Your task to perform on an android device: turn off notifications in google photos Image 0: 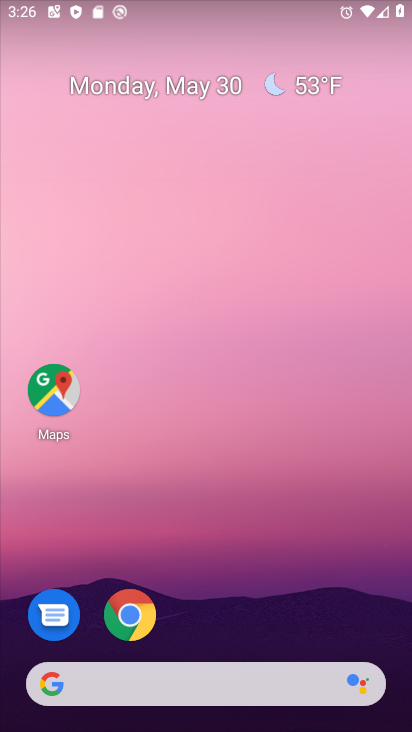
Step 0: drag from (292, 589) to (302, 202)
Your task to perform on an android device: turn off notifications in google photos Image 1: 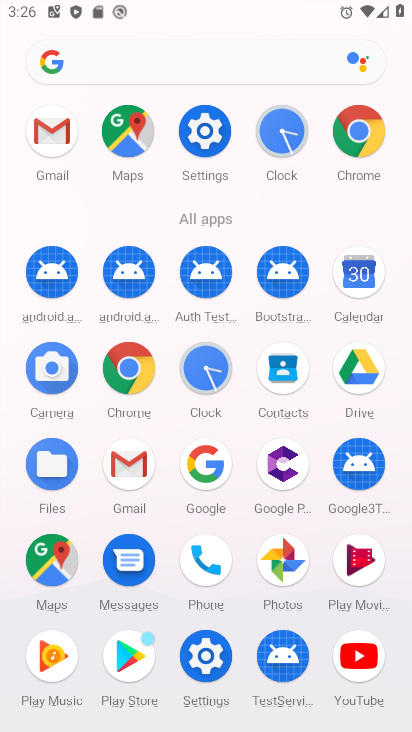
Step 1: click (284, 565)
Your task to perform on an android device: turn off notifications in google photos Image 2: 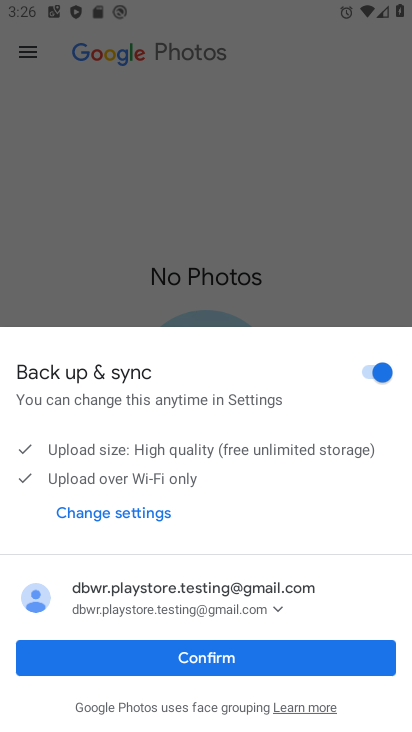
Step 2: click (191, 651)
Your task to perform on an android device: turn off notifications in google photos Image 3: 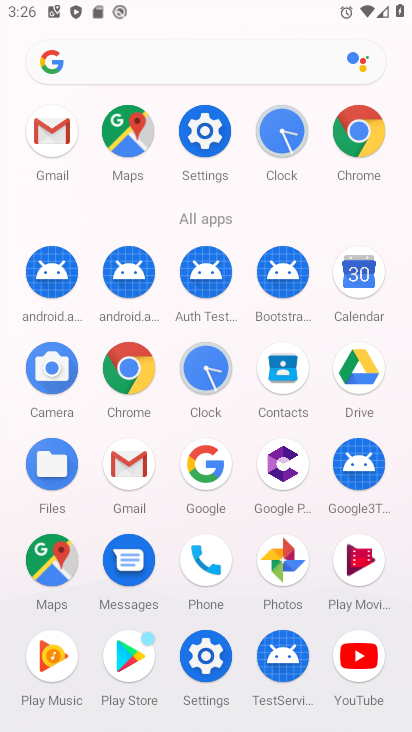
Step 3: click (277, 556)
Your task to perform on an android device: turn off notifications in google photos Image 4: 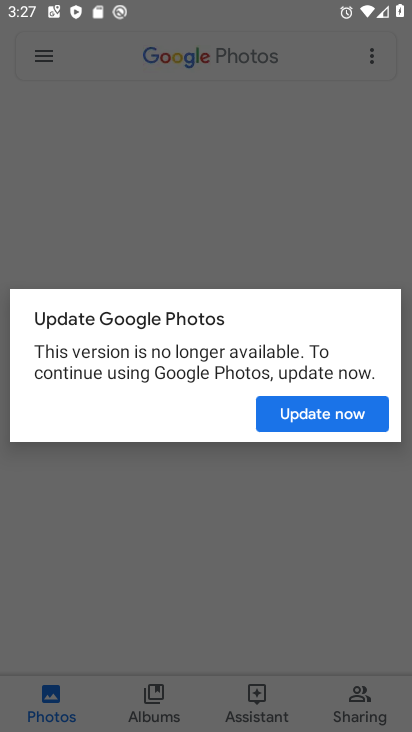
Step 4: click (319, 407)
Your task to perform on an android device: turn off notifications in google photos Image 5: 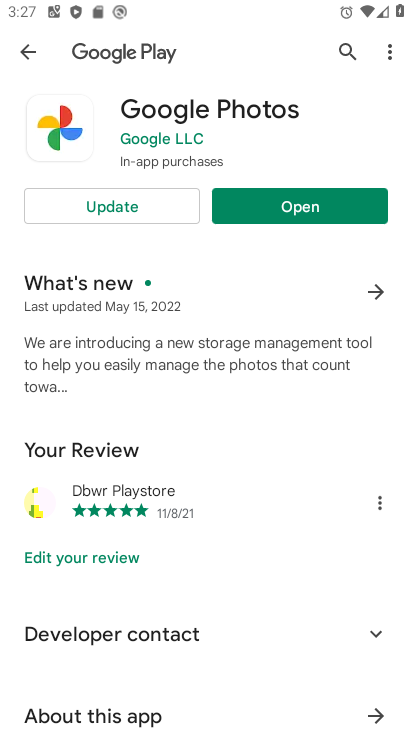
Step 5: click (247, 207)
Your task to perform on an android device: turn off notifications in google photos Image 6: 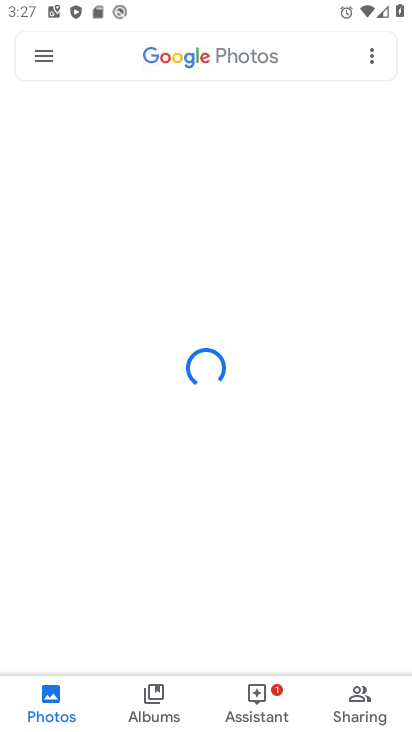
Step 6: click (40, 76)
Your task to perform on an android device: turn off notifications in google photos Image 7: 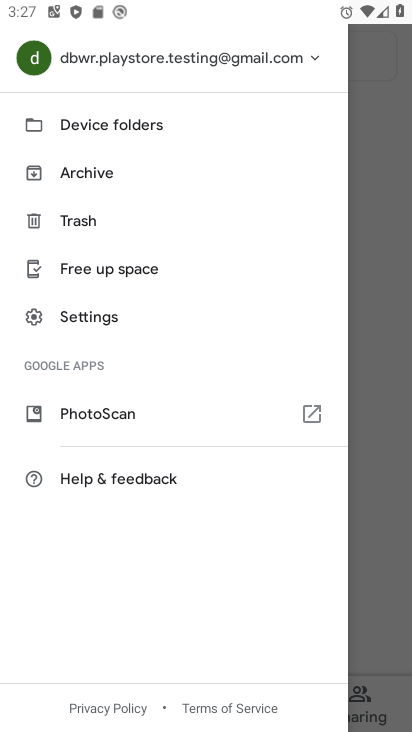
Step 7: click (78, 302)
Your task to perform on an android device: turn off notifications in google photos Image 8: 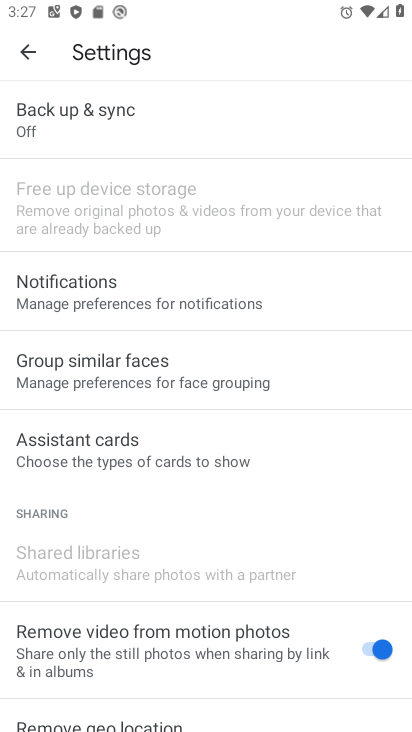
Step 8: click (103, 276)
Your task to perform on an android device: turn off notifications in google photos Image 9: 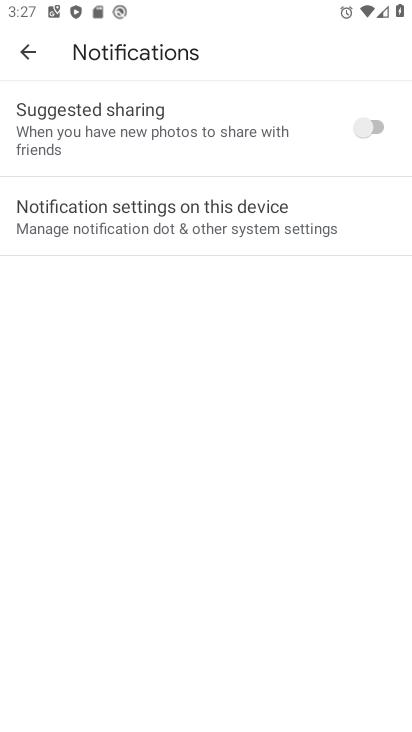
Step 9: click (261, 196)
Your task to perform on an android device: turn off notifications in google photos Image 10: 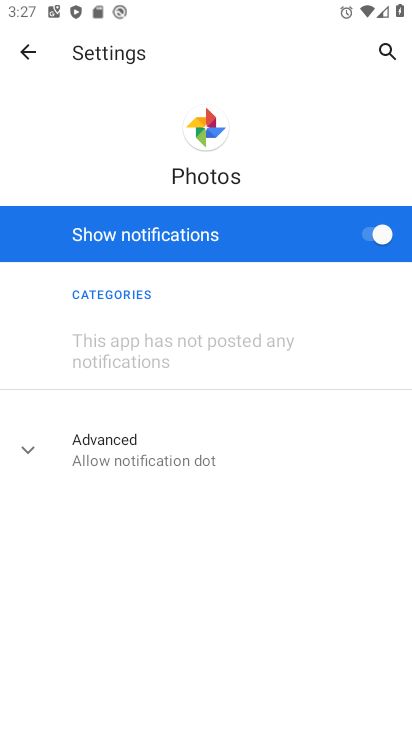
Step 10: click (382, 238)
Your task to perform on an android device: turn off notifications in google photos Image 11: 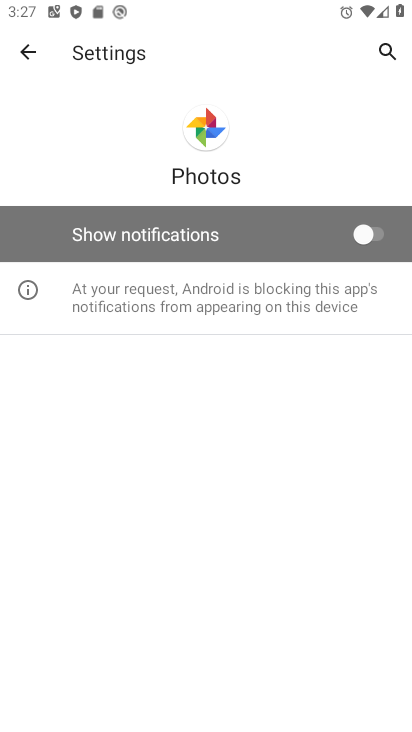
Step 11: task complete